Your task to perform on an android device: Go to notification settings Image 0: 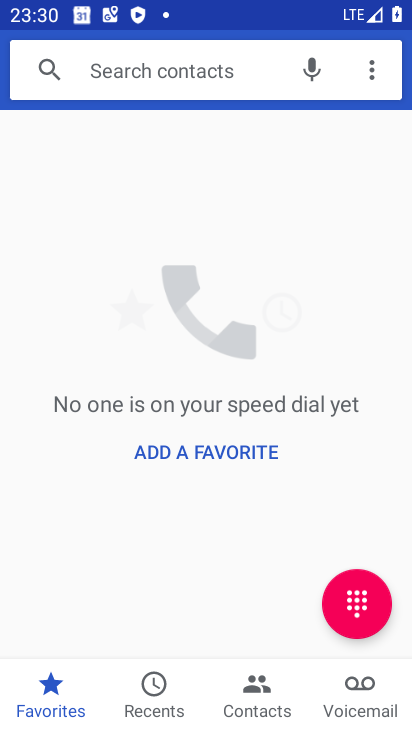
Step 0: press home button
Your task to perform on an android device: Go to notification settings Image 1: 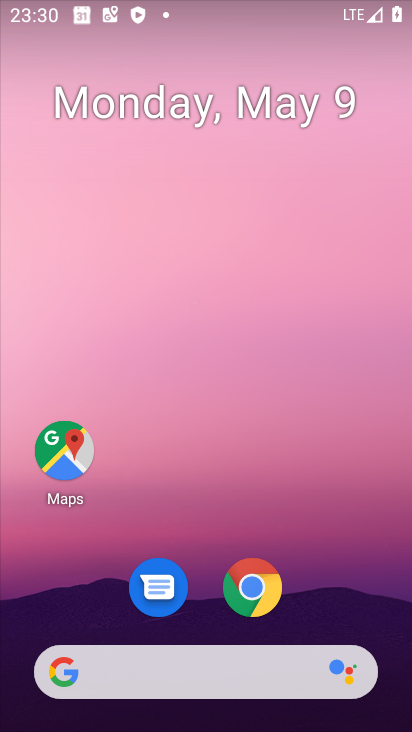
Step 1: drag from (219, 535) to (177, 123)
Your task to perform on an android device: Go to notification settings Image 2: 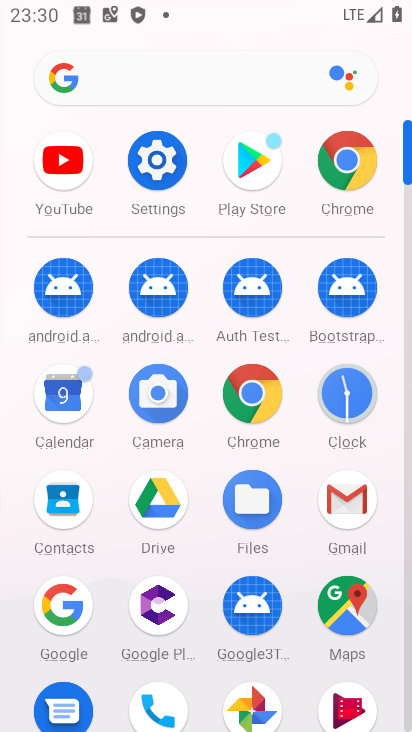
Step 2: click (153, 147)
Your task to perform on an android device: Go to notification settings Image 3: 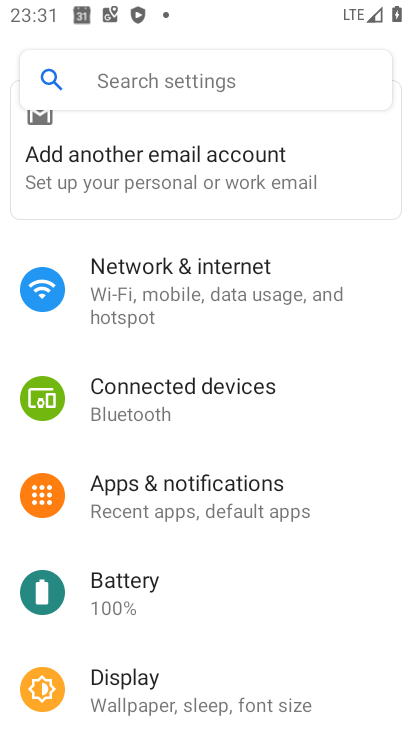
Step 3: click (212, 521)
Your task to perform on an android device: Go to notification settings Image 4: 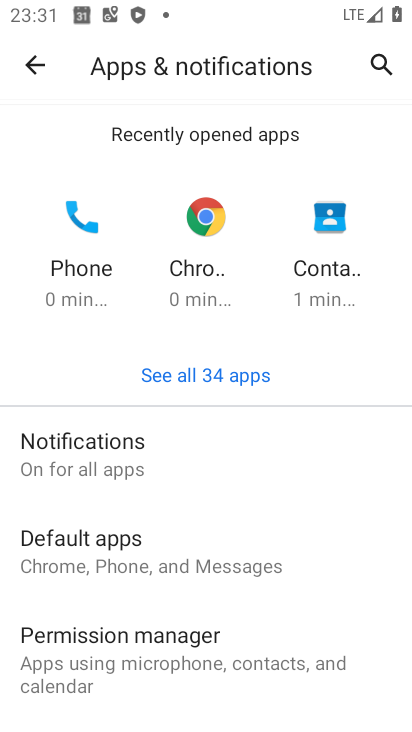
Step 4: click (129, 471)
Your task to perform on an android device: Go to notification settings Image 5: 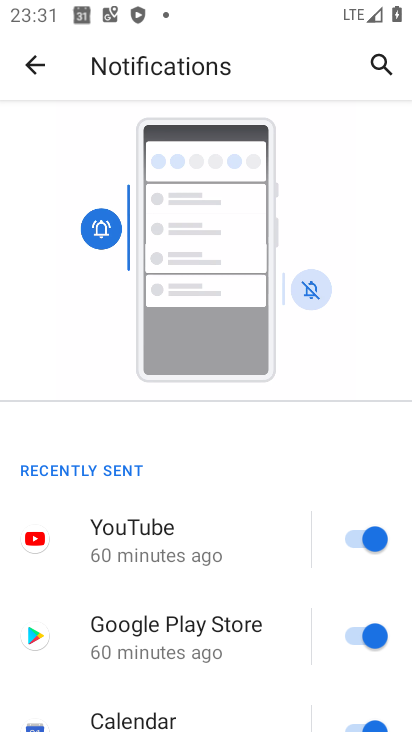
Step 5: task complete